Your task to perform on an android device: delete the emails in spam in the gmail app Image 0: 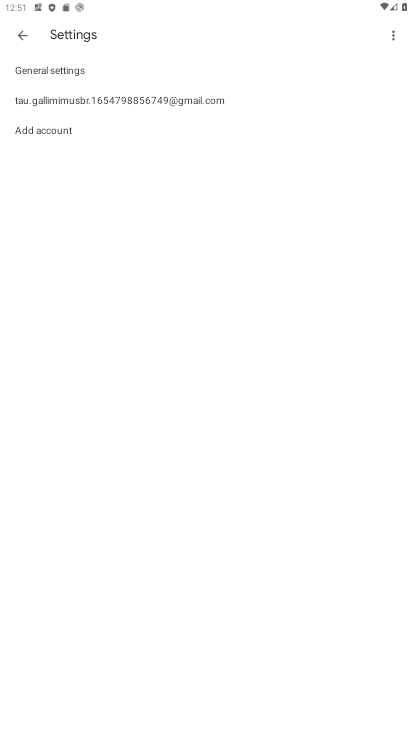
Step 0: press home button
Your task to perform on an android device: delete the emails in spam in the gmail app Image 1: 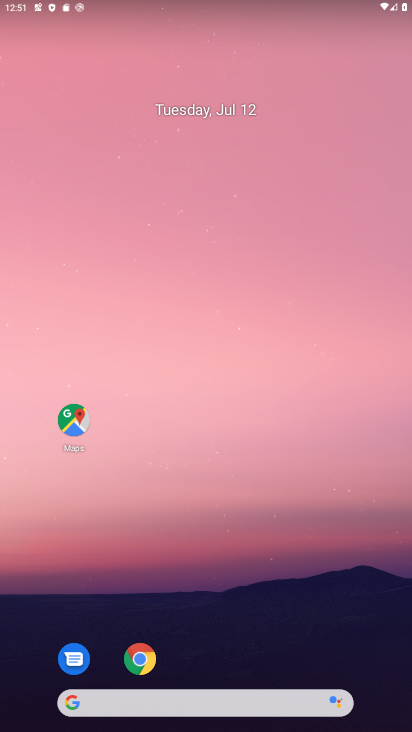
Step 1: drag from (240, 727) to (243, 150)
Your task to perform on an android device: delete the emails in spam in the gmail app Image 2: 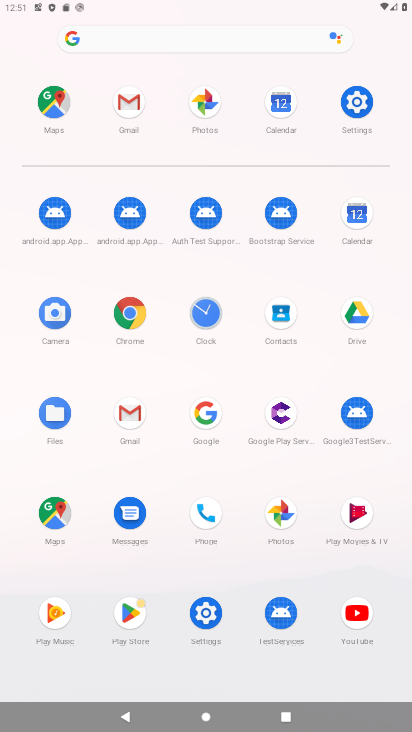
Step 2: click (142, 415)
Your task to perform on an android device: delete the emails in spam in the gmail app Image 3: 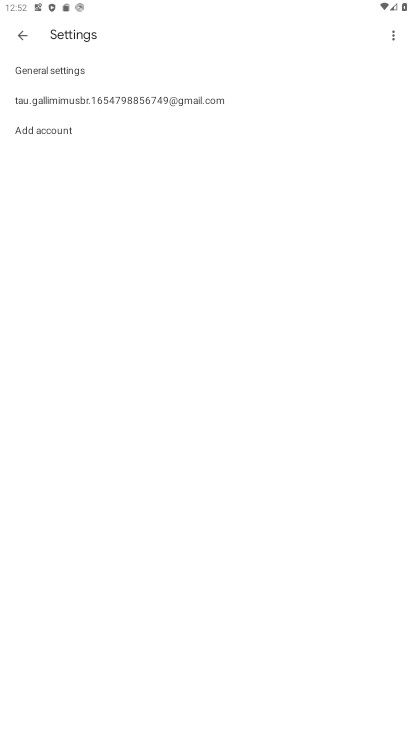
Step 3: click (23, 33)
Your task to perform on an android device: delete the emails in spam in the gmail app Image 4: 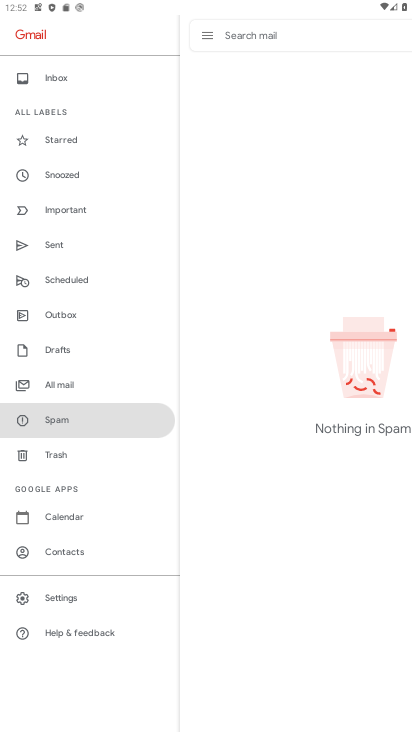
Step 4: click (61, 421)
Your task to perform on an android device: delete the emails in spam in the gmail app Image 5: 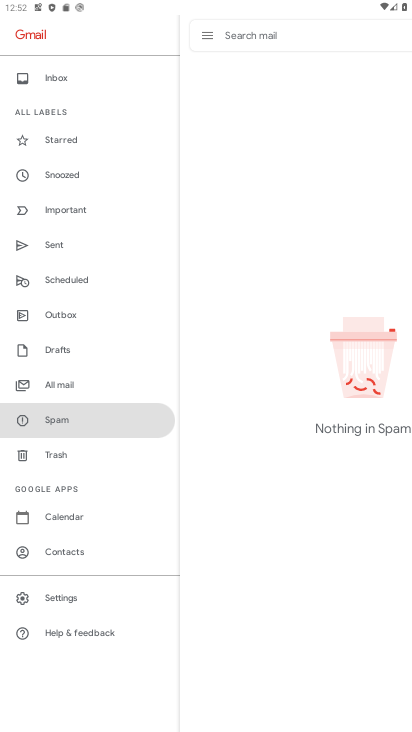
Step 5: task complete